Your task to perform on an android device: Open location settings Image 0: 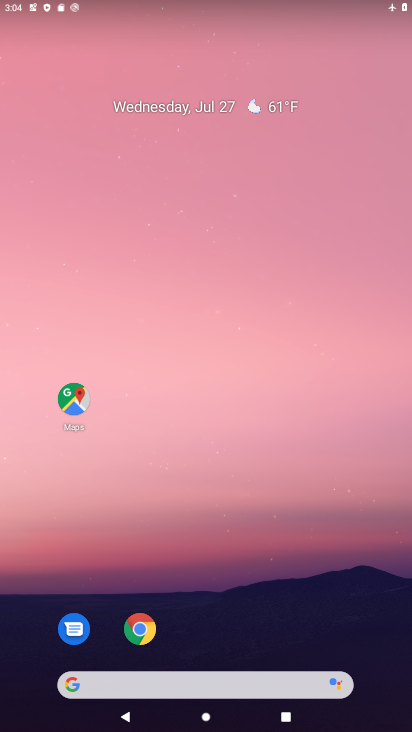
Step 0: drag from (187, 690) to (320, 30)
Your task to perform on an android device: Open location settings Image 1: 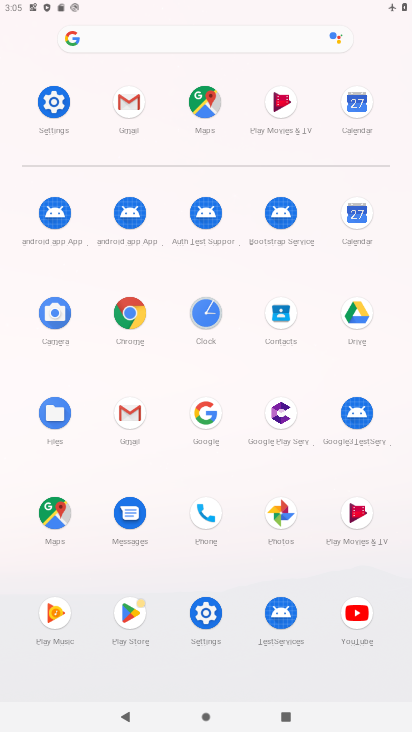
Step 1: click (55, 101)
Your task to perform on an android device: Open location settings Image 2: 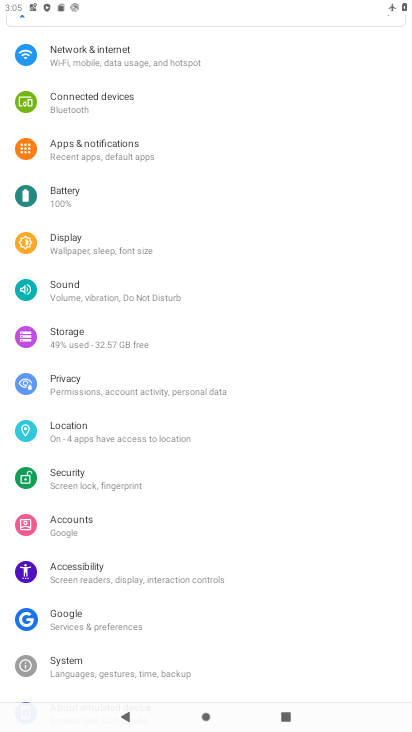
Step 2: click (79, 436)
Your task to perform on an android device: Open location settings Image 3: 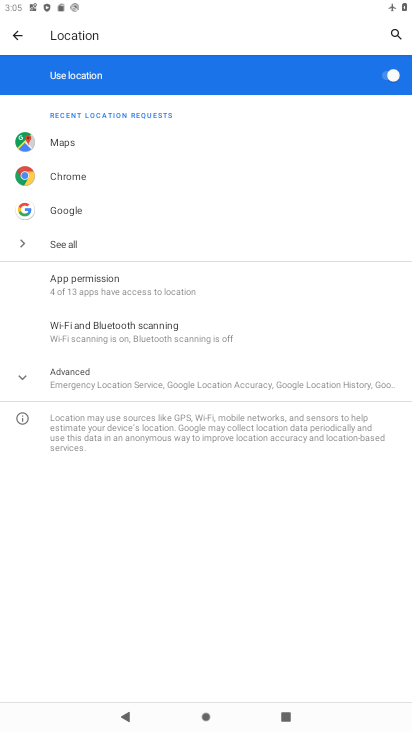
Step 3: task complete